Your task to perform on an android device: Open Google Maps and go to "Timeline" Image 0: 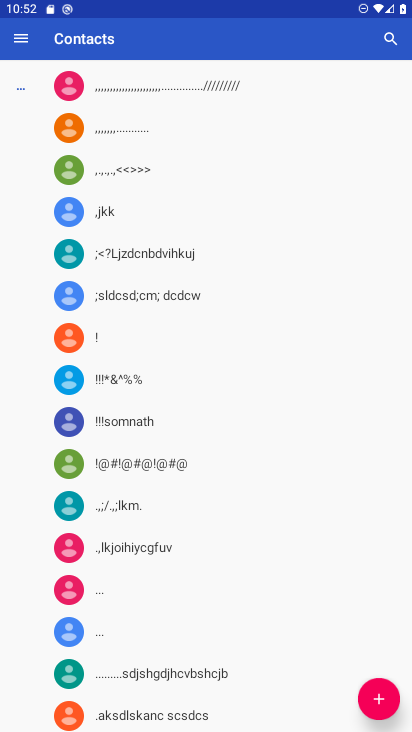
Step 0: press home button
Your task to perform on an android device: Open Google Maps and go to "Timeline" Image 1: 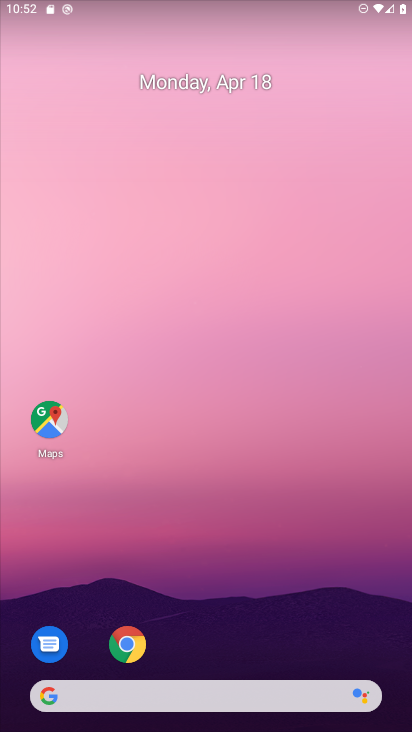
Step 1: drag from (197, 576) to (276, 37)
Your task to perform on an android device: Open Google Maps and go to "Timeline" Image 2: 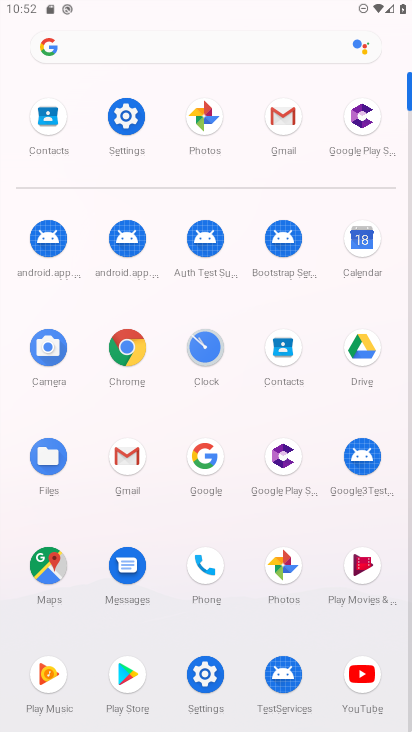
Step 2: click (47, 574)
Your task to perform on an android device: Open Google Maps and go to "Timeline" Image 3: 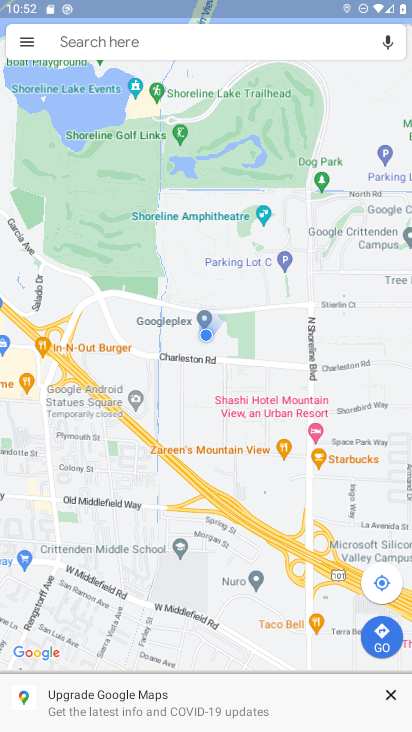
Step 3: click (32, 42)
Your task to perform on an android device: Open Google Maps and go to "Timeline" Image 4: 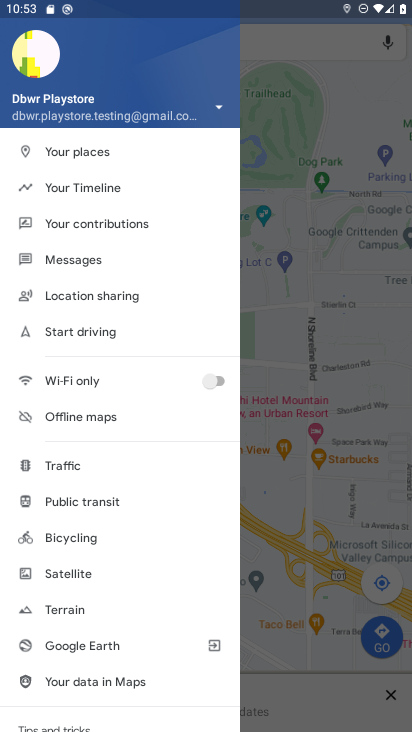
Step 4: click (106, 187)
Your task to perform on an android device: Open Google Maps and go to "Timeline" Image 5: 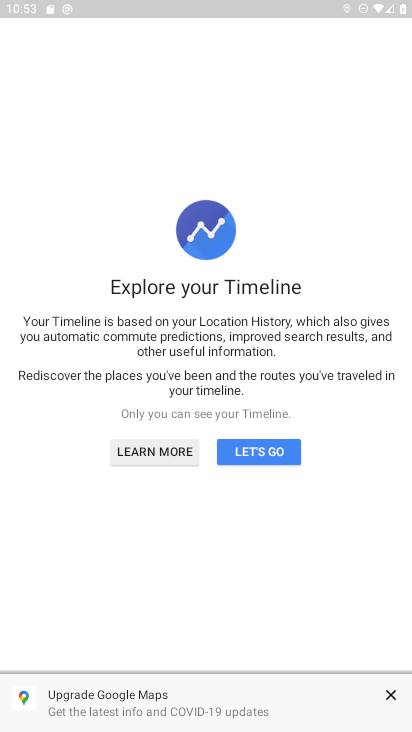
Step 5: click (258, 450)
Your task to perform on an android device: Open Google Maps and go to "Timeline" Image 6: 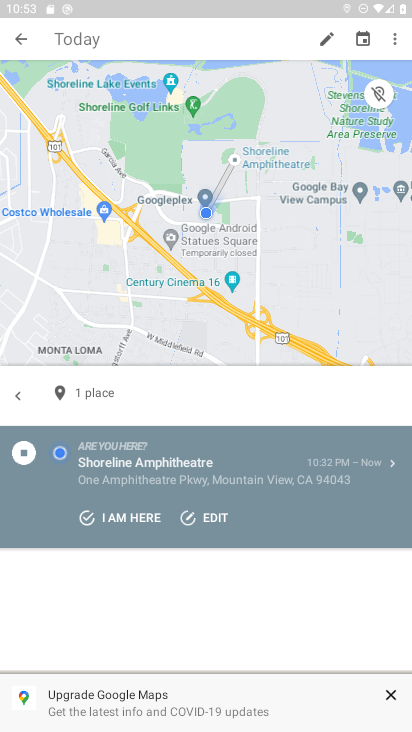
Step 6: task complete